Your task to perform on an android device: Open battery settings Image 0: 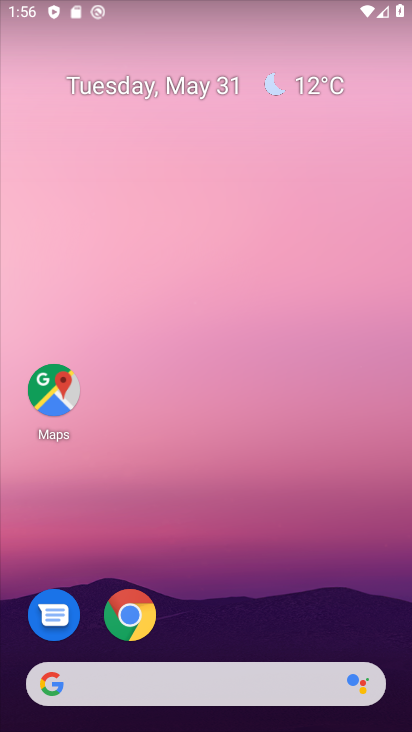
Step 0: drag from (239, 649) to (302, 10)
Your task to perform on an android device: Open battery settings Image 1: 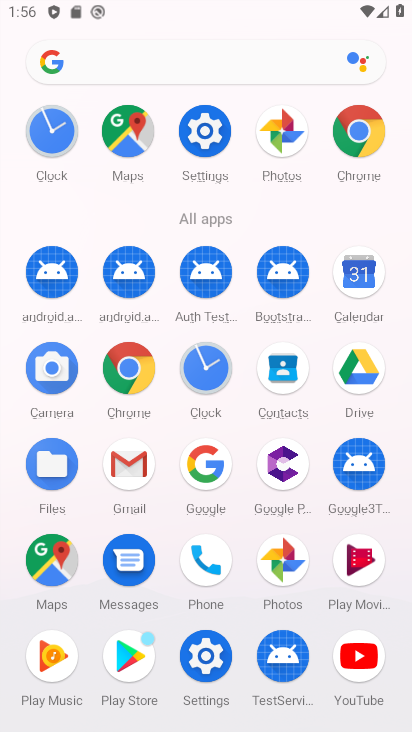
Step 1: drag from (167, 500) to (227, 281)
Your task to perform on an android device: Open battery settings Image 2: 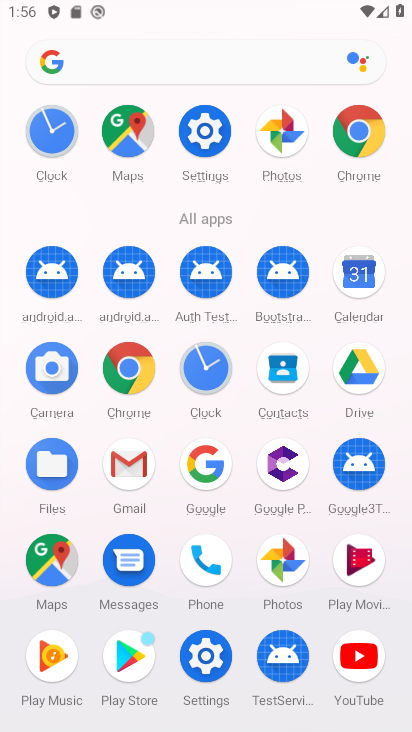
Step 2: click (205, 681)
Your task to perform on an android device: Open battery settings Image 3: 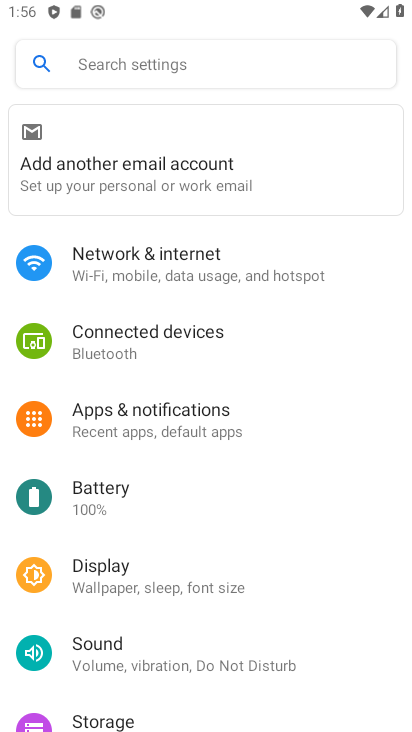
Step 3: click (127, 490)
Your task to perform on an android device: Open battery settings Image 4: 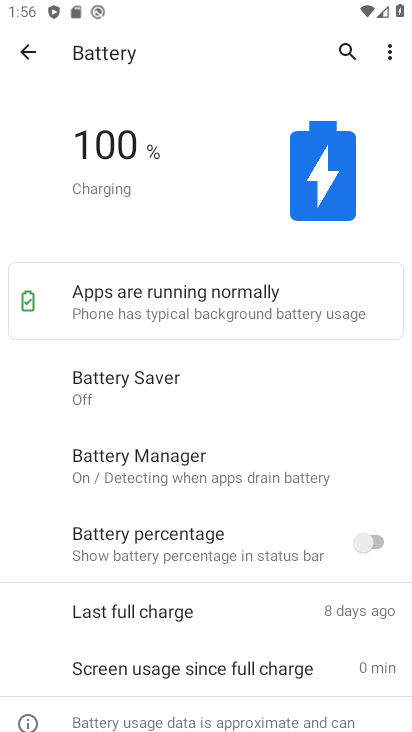
Step 4: task complete